Your task to perform on an android device: move a message to another label in the gmail app Image 0: 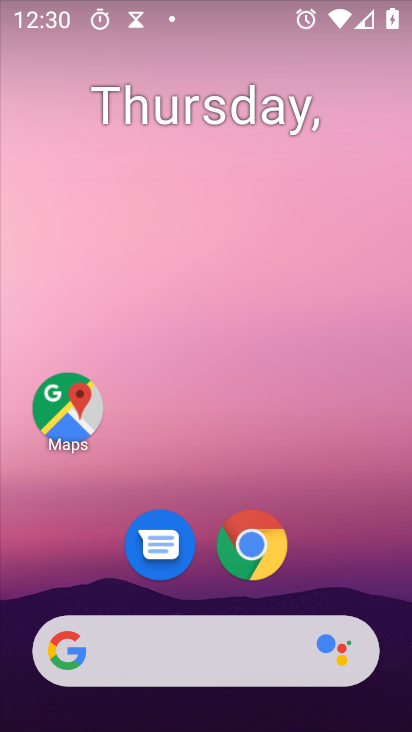
Step 0: press home button
Your task to perform on an android device: move a message to another label in the gmail app Image 1: 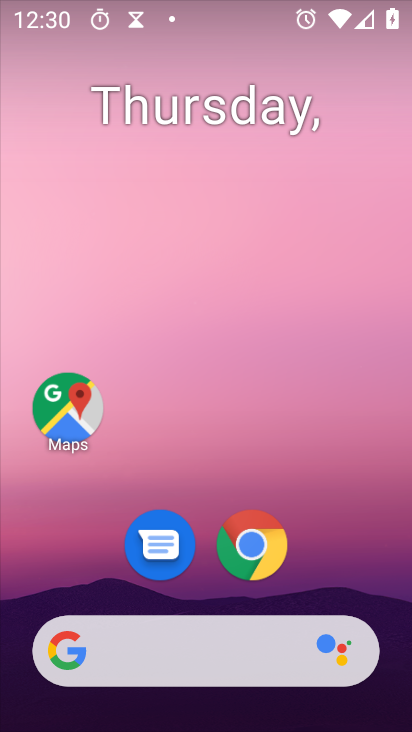
Step 1: drag from (160, 659) to (330, 102)
Your task to perform on an android device: move a message to another label in the gmail app Image 2: 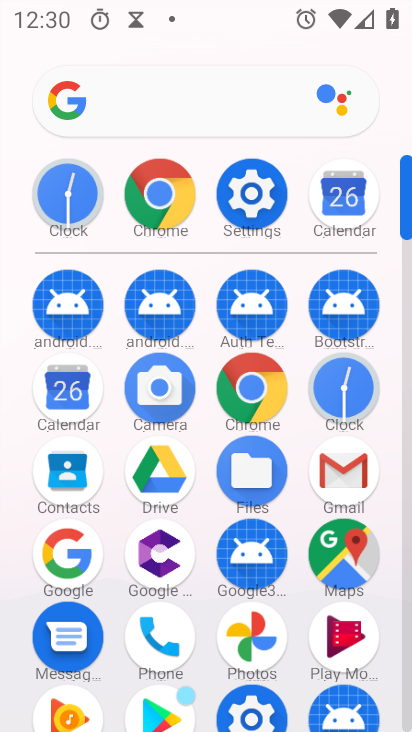
Step 2: click (330, 474)
Your task to perform on an android device: move a message to another label in the gmail app Image 3: 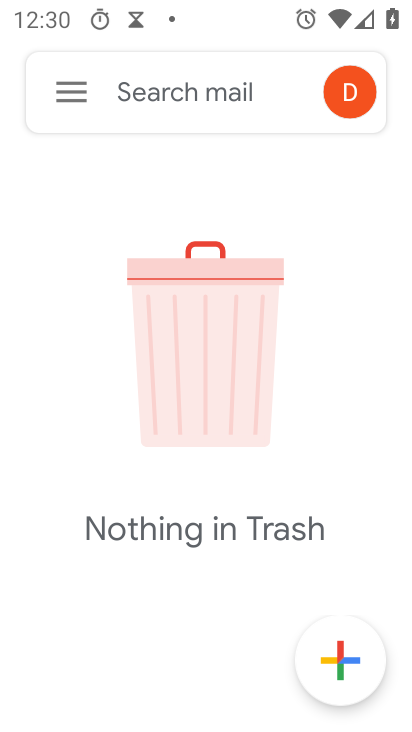
Step 3: click (76, 98)
Your task to perform on an android device: move a message to another label in the gmail app Image 4: 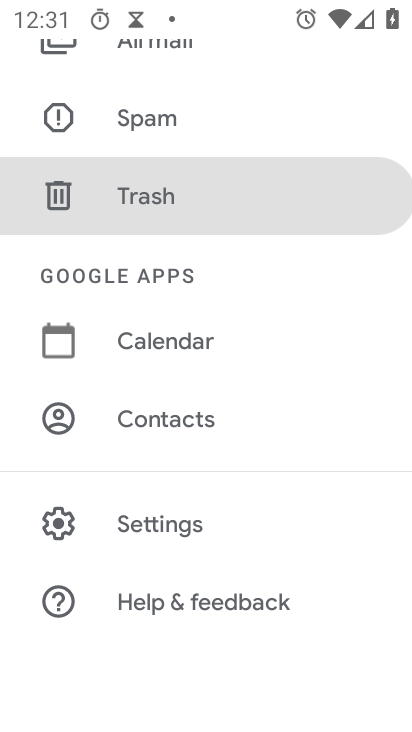
Step 4: drag from (249, 290) to (214, 675)
Your task to perform on an android device: move a message to another label in the gmail app Image 5: 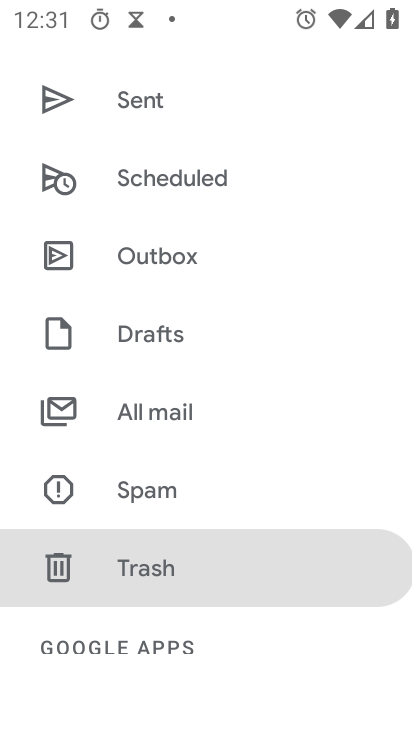
Step 5: drag from (281, 279) to (223, 653)
Your task to perform on an android device: move a message to another label in the gmail app Image 6: 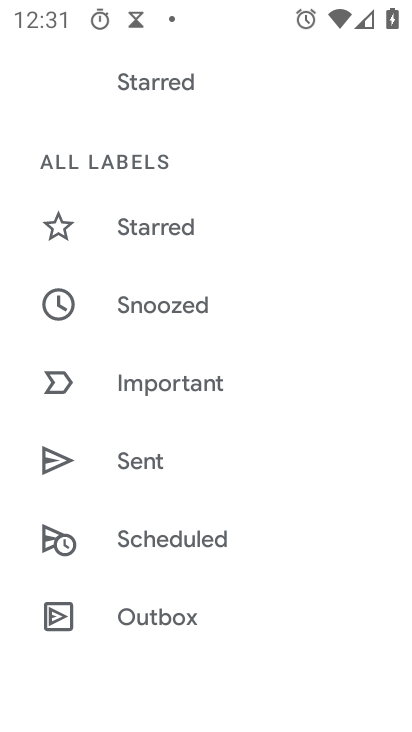
Step 6: drag from (236, 601) to (327, 221)
Your task to perform on an android device: move a message to another label in the gmail app Image 7: 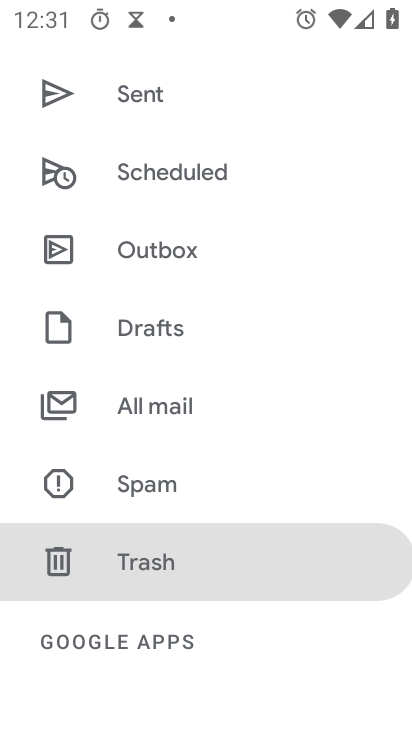
Step 7: click (177, 402)
Your task to perform on an android device: move a message to another label in the gmail app Image 8: 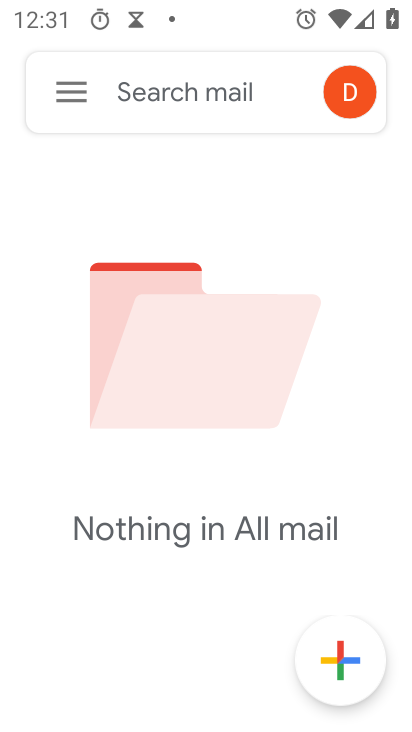
Step 8: task complete